Your task to perform on an android device: check battery use Image 0: 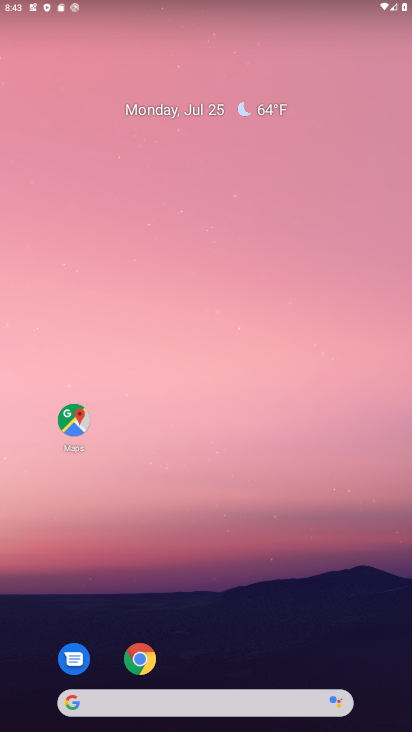
Step 0: drag from (365, 615) to (355, 114)
Your task to perform on an android device: check battery use Image 1: 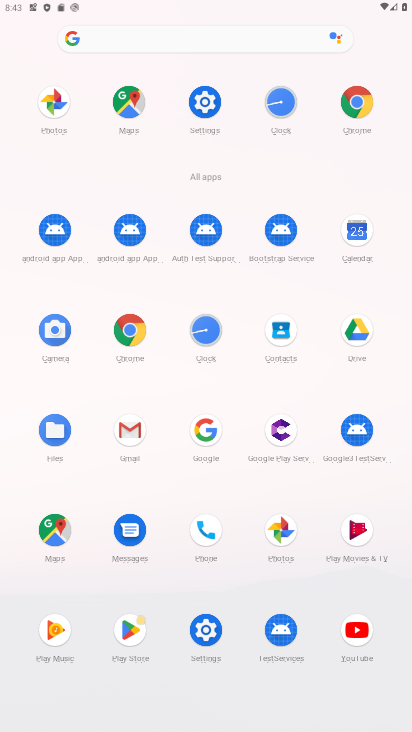
Step 1: click (208, 110)
Your task to perform on an android device: check battery use Image 2: 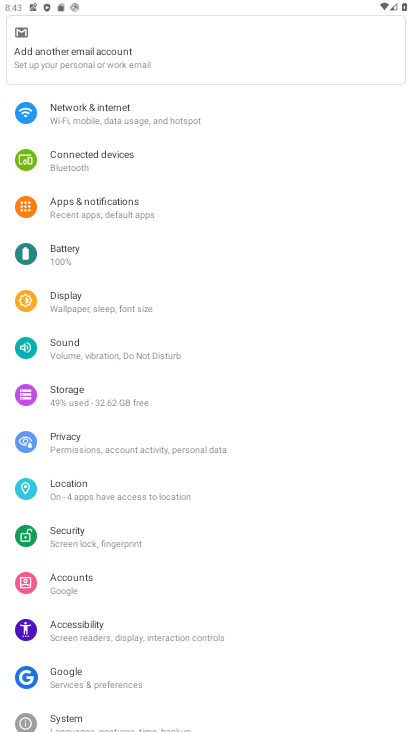
Step 2: drag from (332, 514) to (342, 442)
Your task to perform on an android device: check battery use Image 3: 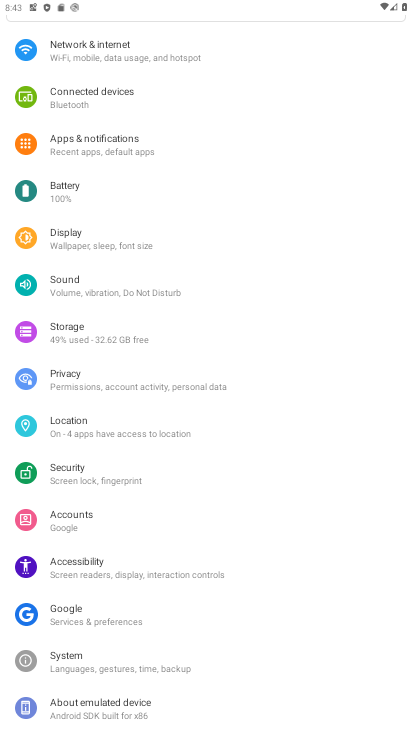
Step 3: drag from (326, 553) to (330, 476)
Your task to perform on an android device: check battery use Image 4: 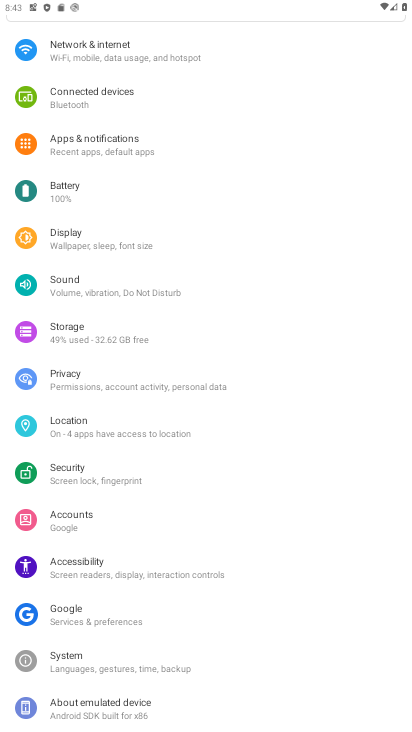
Step 4: drag from (318, 352) to (317, 391)
Your task to perform on an android device: check battery use Image 5: 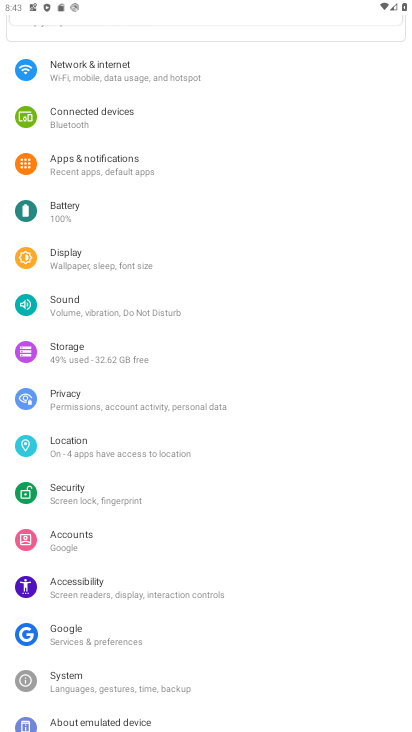
Step 5: drag from (253, 179) to (256, 307)
Your task to perform on an android device: check battery use Image 6: 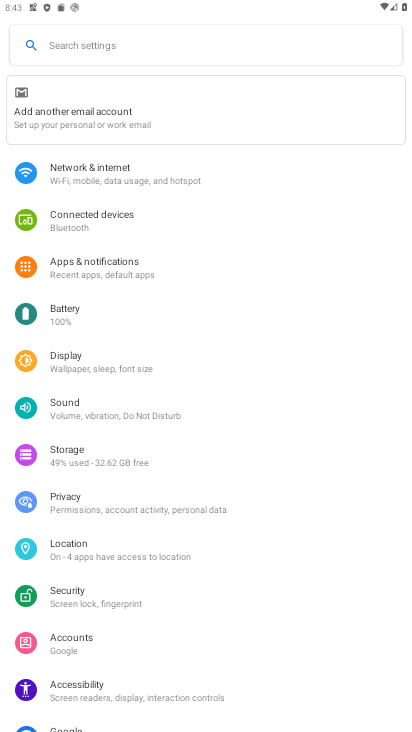
Step 6: click (114, 327)
Your task to perform on an android device: check battery use Image 7: 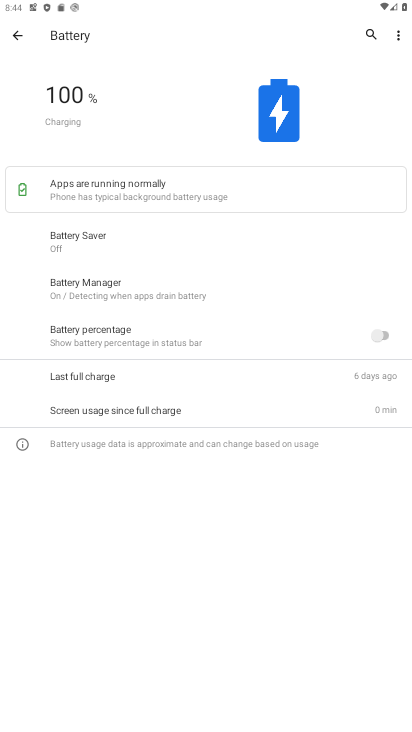
Step 7: click (396, 35)
Your task to perform on an android device: check battery use Image 8: 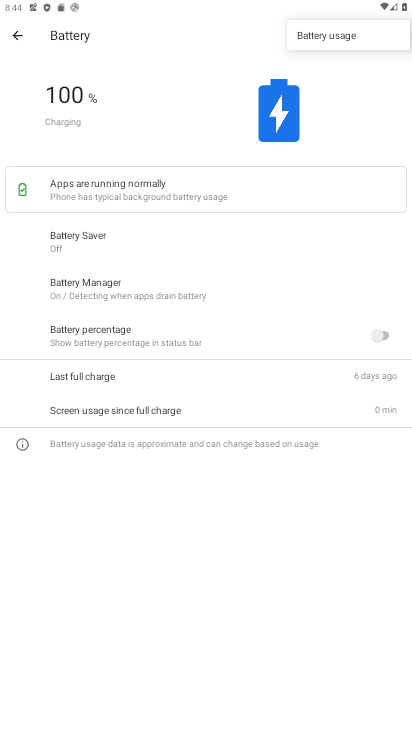
Step 8: click (377, 36)
Your task to perform on an android device: check battery use Image 9: 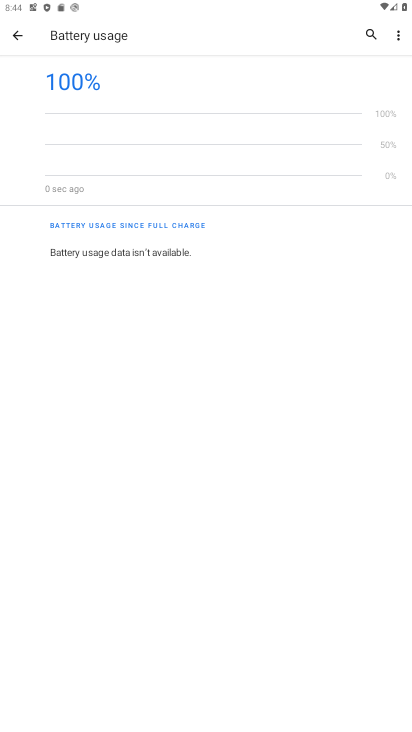
Step 9: task complete